Your task to perform on an android device: turn on priority inbox in the gmail app Image 0: 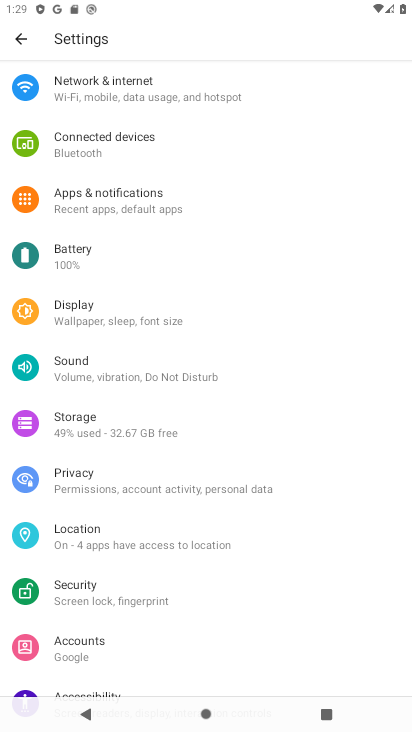
Step 0: press home button
Your task to perform on an android device: turn on priority inbox in the gmail app Image 1: 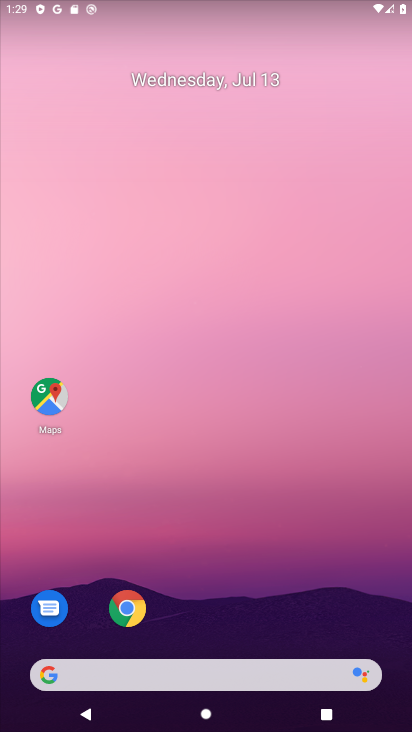
Step 1: drag from (214, 638) to (185, 271)
Your task to perform on an android device: turn on priority inbox in the gmail app Image 2: 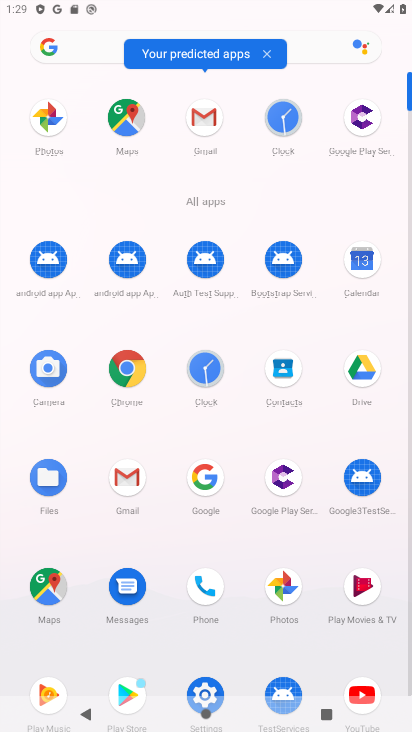
Step 2: click (212, 128)
Your task to perform on an android device: turn on priority inbox in the gmail app Image 3: 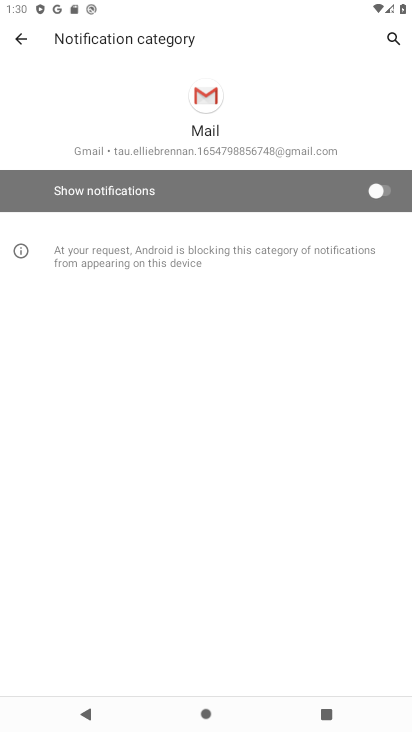
Step 3: click (21, 35)
Your task to perform on an android device: turn on priority inbox in the gmail app Image 4: 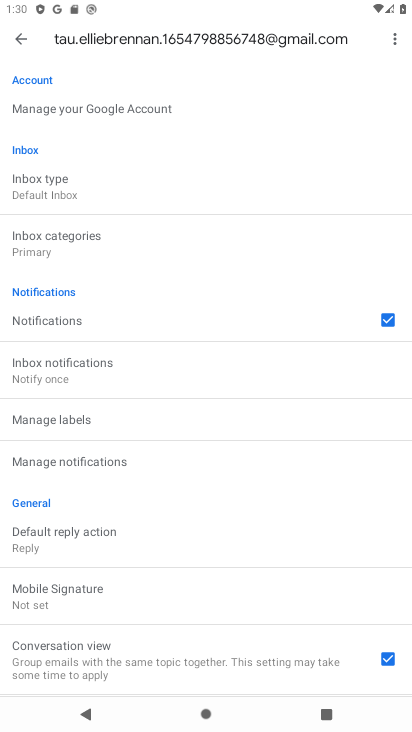
Step 4: click (107, 197)
Your task to perform on an android device: turn on priority inbox in the gmail app Image 5: 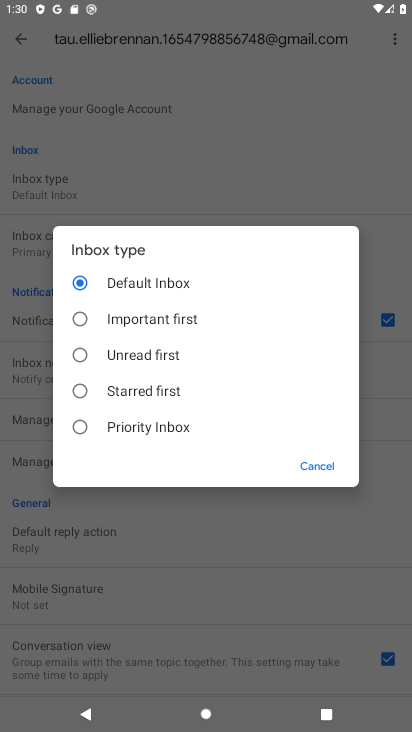
Step 5: click (164, 434)
Your task to perform on an android device: turn on priority inbox in the gmail app Image 6: 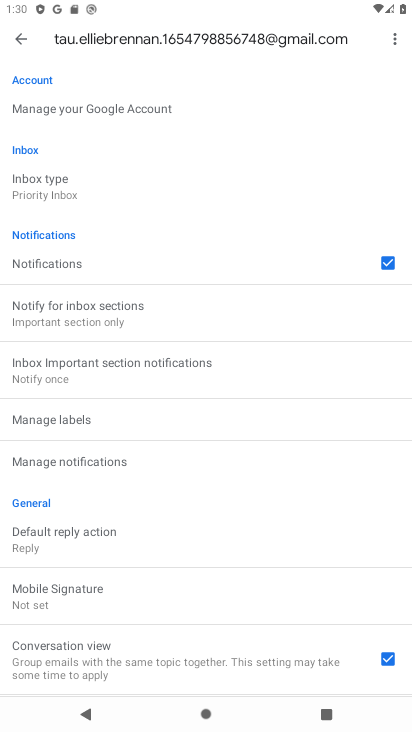
Step 6: task complete